Your task to perform on an android device: Go to accessibility settings Image 0: 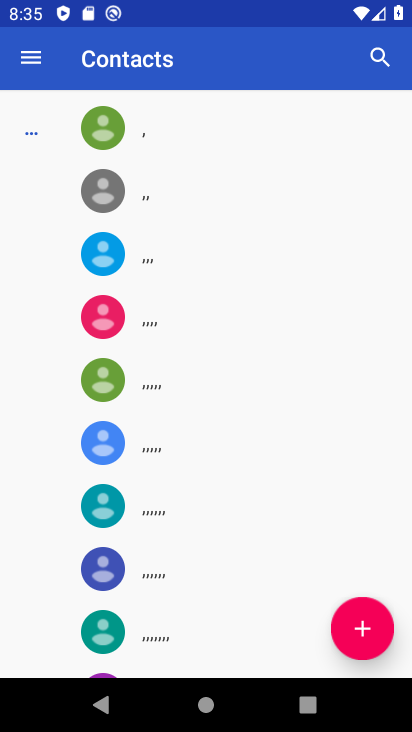
Step 0: press home button
Your task to perform on an android device: Go to accessibility settings Image 1: 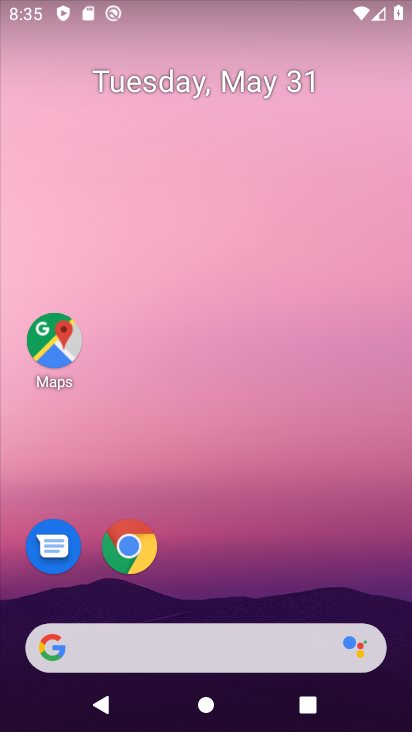
Step 1: drag from (404, 703) to (320, 7)
Your task to perform on an android device: Go to accessibility settings Image 2: 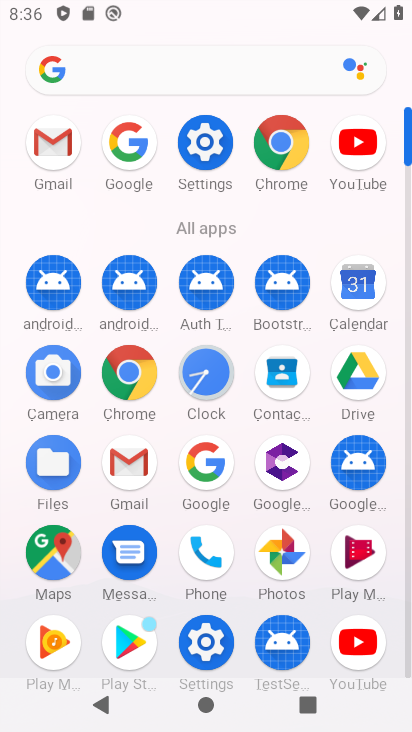
Step 2: click (204, 634)
Your task to perform on an android device: Go to accessibility settings Image 3: 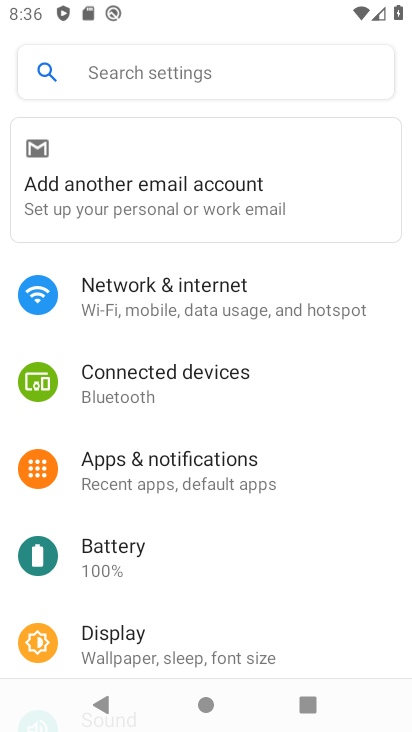
Step 3: drag from (297, 645) to (257, 244)
Your task to perform on an android device: Go to accessibility settings Image 4: 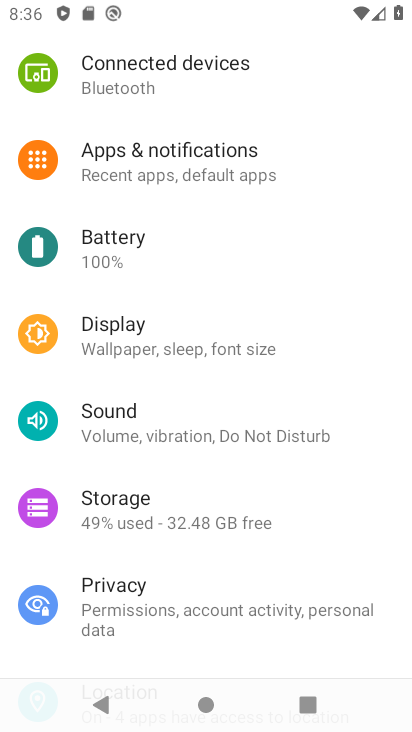
Step 4: drag from (301, 605) to (263, 237)
Your task to perform on an android device: Go to accessibility settings Image 5: 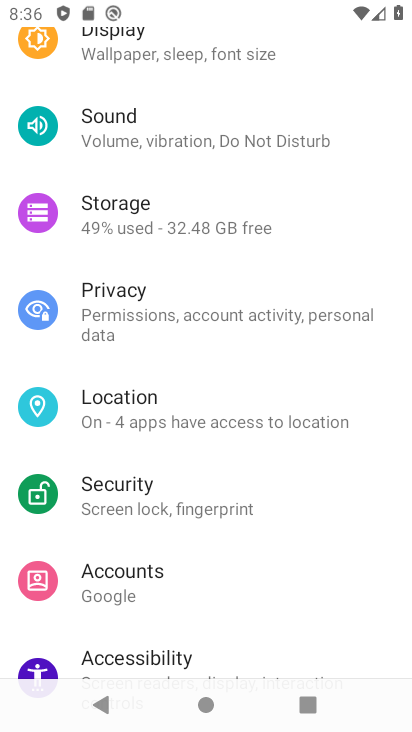
Step 5: drag from (307, 651) to (259, 329)
Your task to perform on an android device: Go to accessibility settings Image 6: 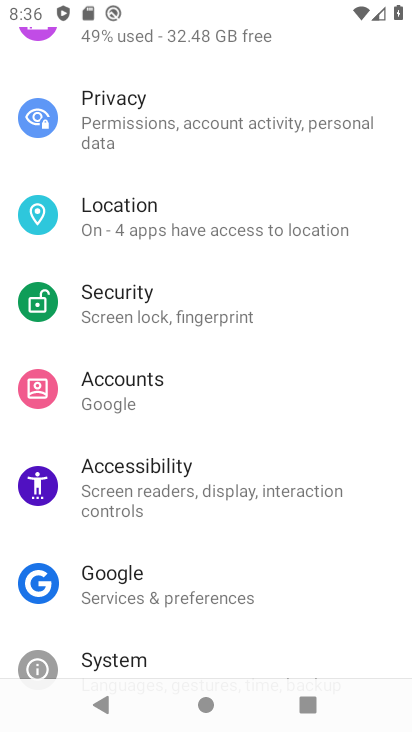
Step 6: click (170, 476)
Your task to perform on an android device: Go to accessibility settings Image 7: 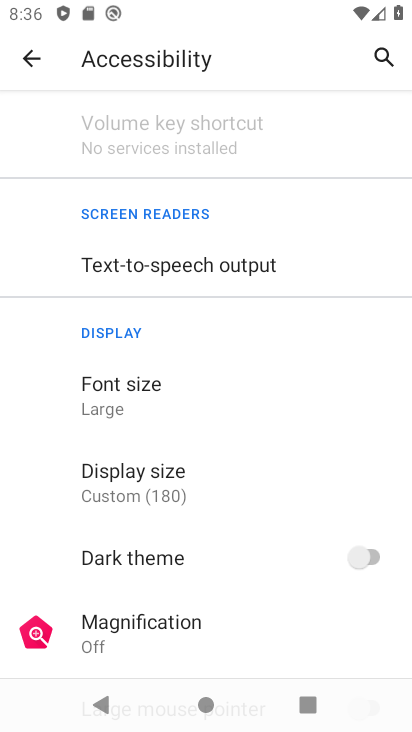
Step 7: task complete